Your task to perform on an android device: Play the last video I watched on Youtube Image 0: 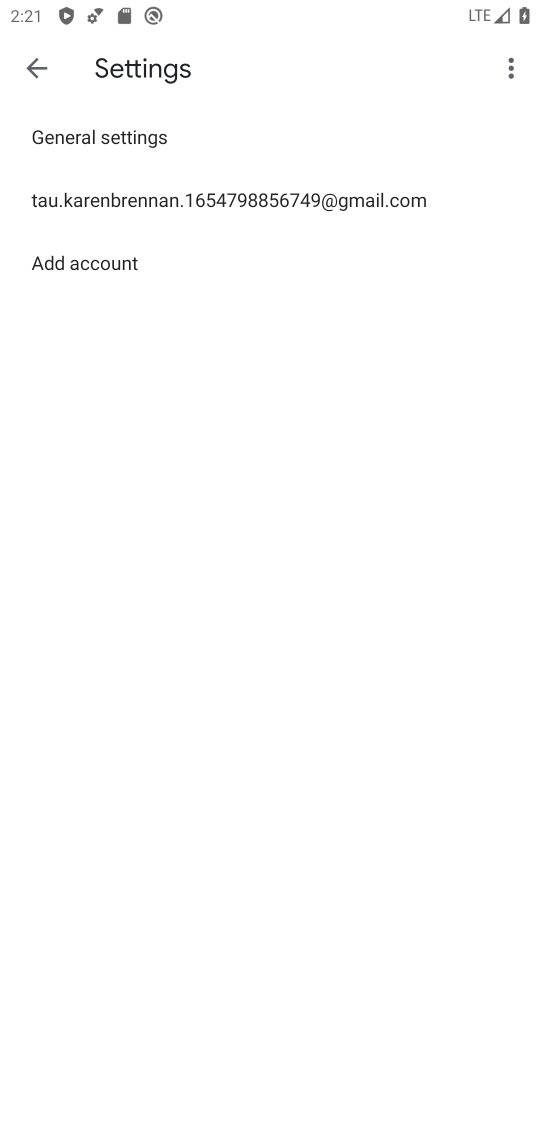
Step 0: press home button
Your task to perform on an android device: Play the last video I watched on Youtube Image 1: 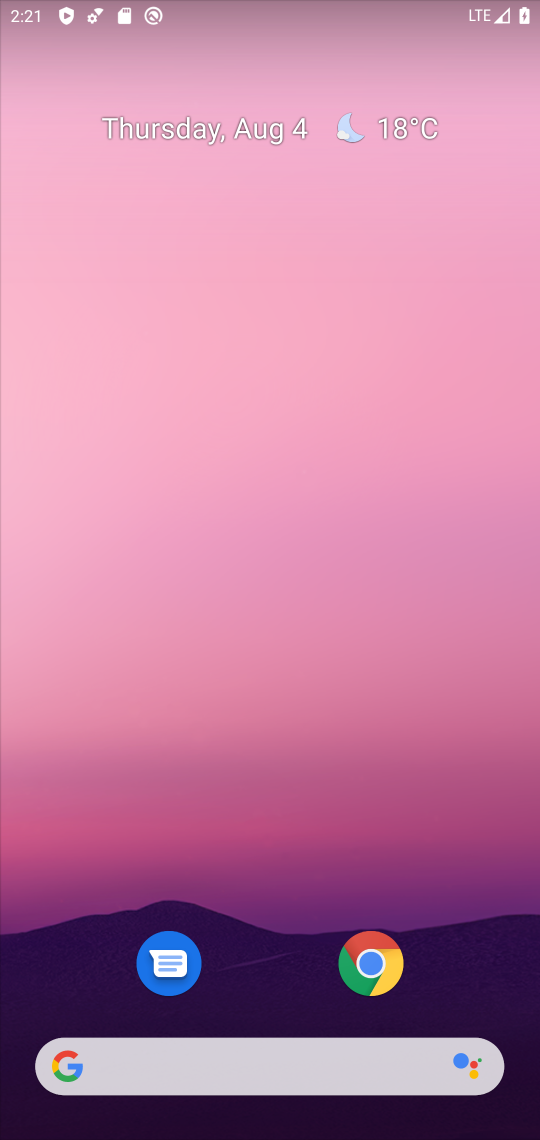
Step 1: drag from (219, 1077) to (190, 260)
Your task to perform on an android device: Play the last video I watched on Youtube Image 2: 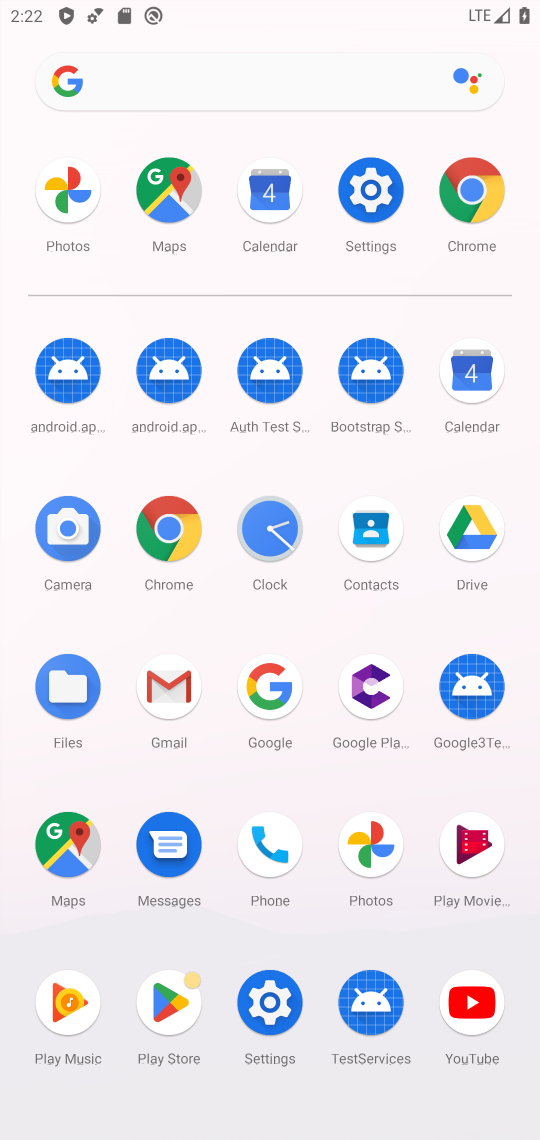
Step 2: click (468, 1018)
Your task to perform on an android device: Play the last video I watched on Youtube Image 3: 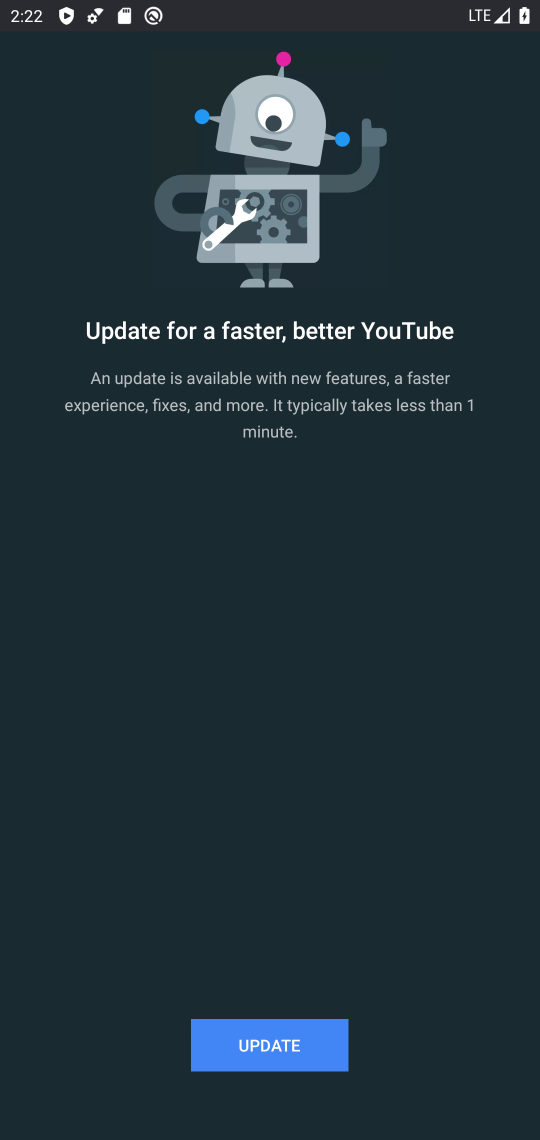
Step 3: click (318, 1049)
Your task to perform on an android device: Play the last video I watched on Youtube Image 4: 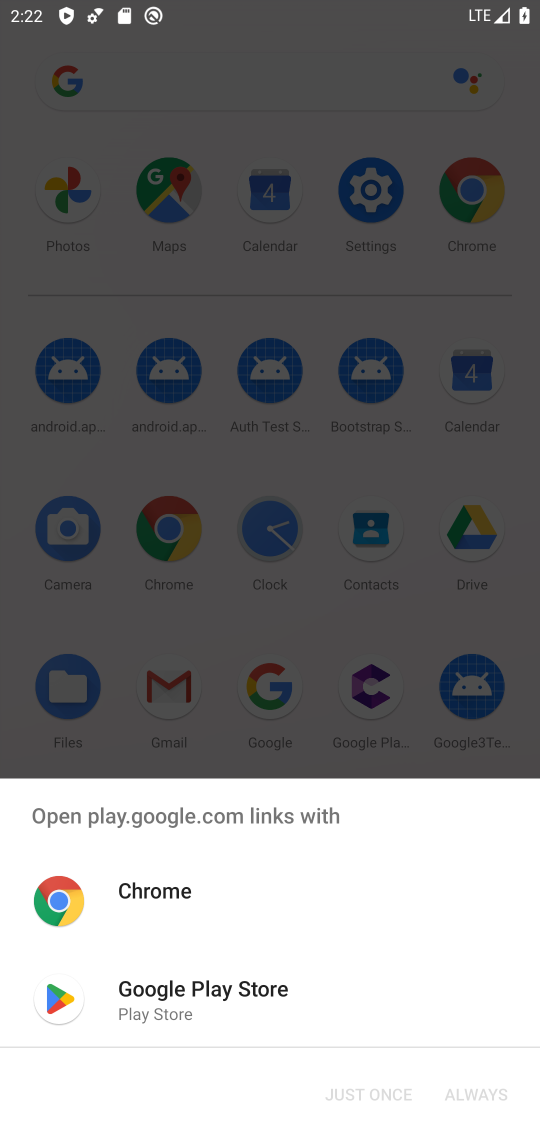
Step 4: click (212, 1001)
Your task to perform on an android device: Play the last video I watched on Youtube Image 5: 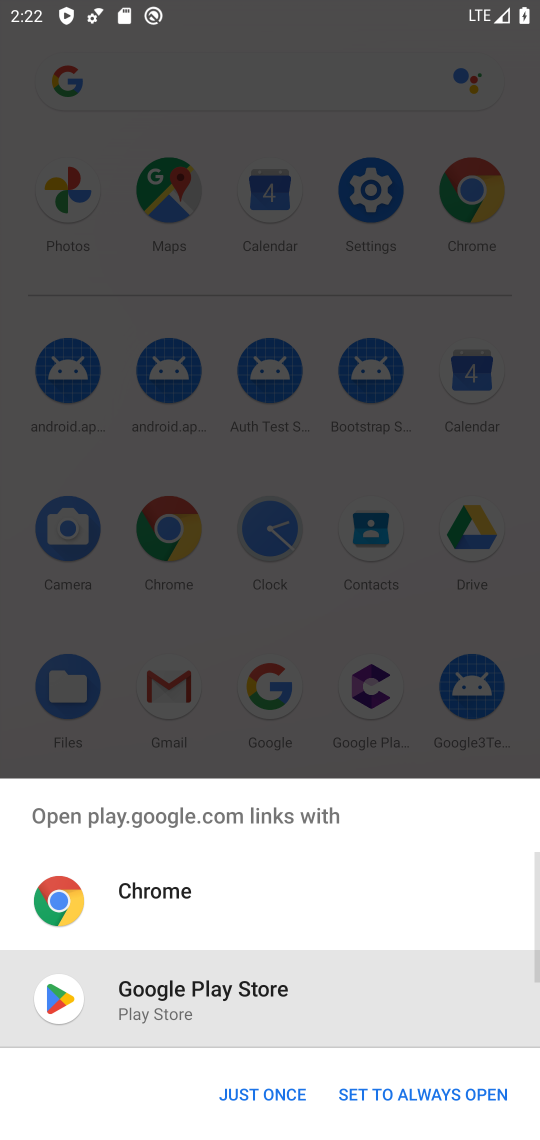
Step 5: click (252, 1096)
Your task to perform on an android device: Play the last video I watched on Youtube Image 6: 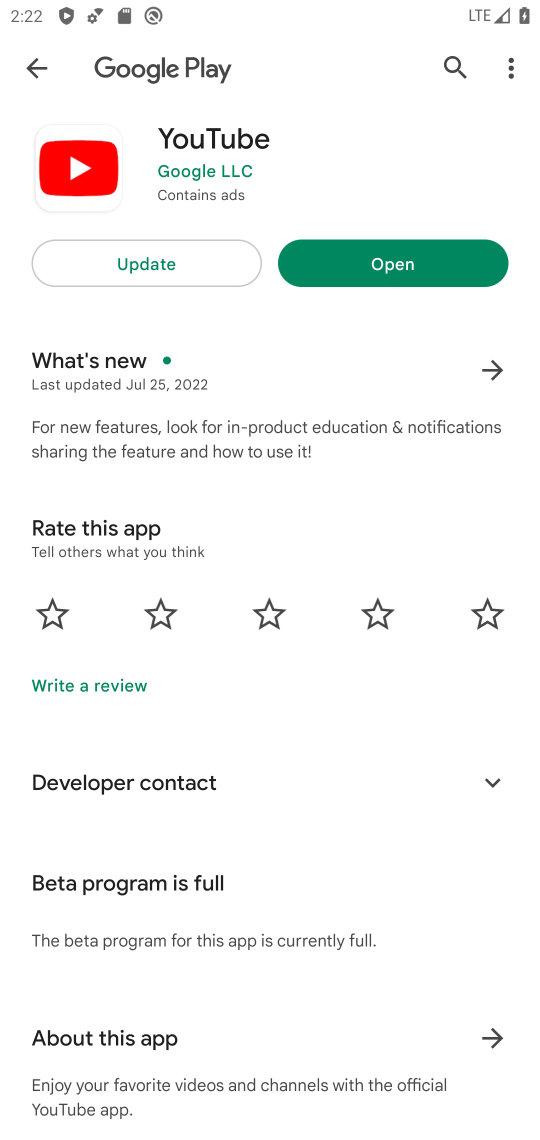
Step 6: click (181, 271)
Your task to perform on an android device: Play the last video I watched on Youtube Image 7: 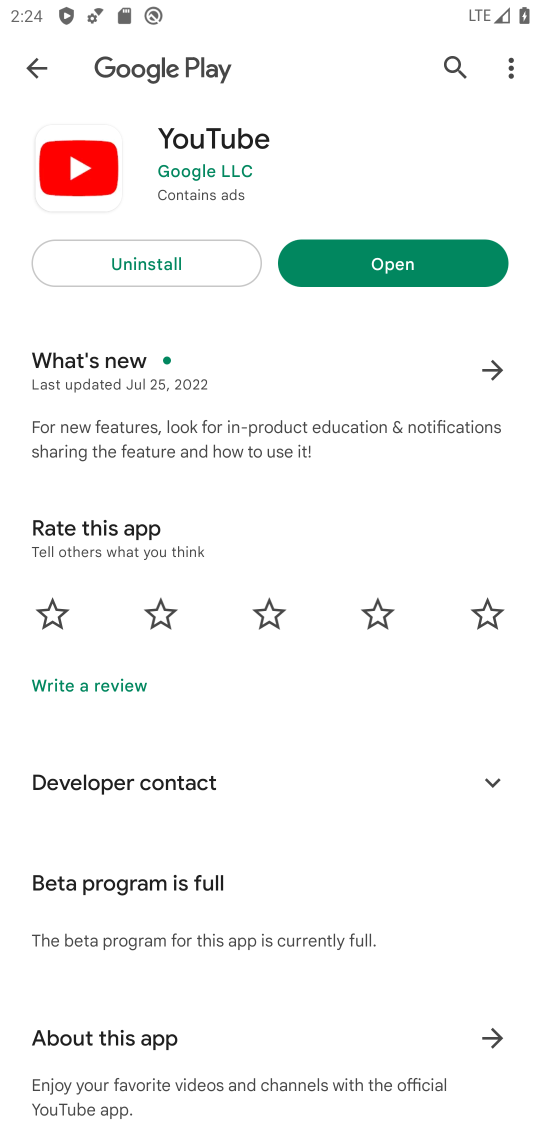
Step 7: click (390, 266)
Your task to perform on an android device: Play the last video I watched on Youtube Image 8: 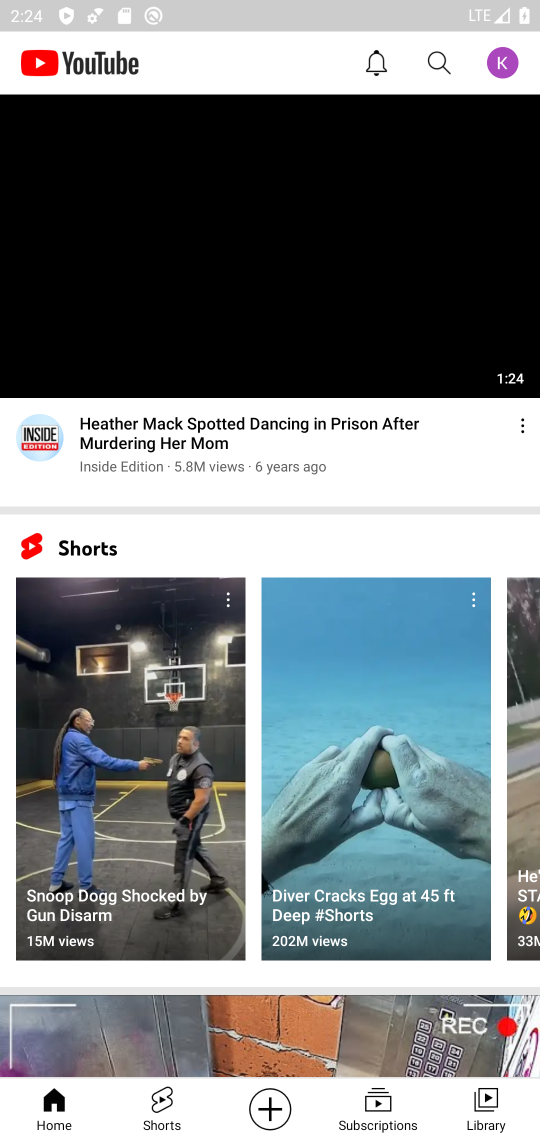
Step 8: click (479, 1106)
Your task to perform on an android device: Play the last video I watched on Youtube Image 9: 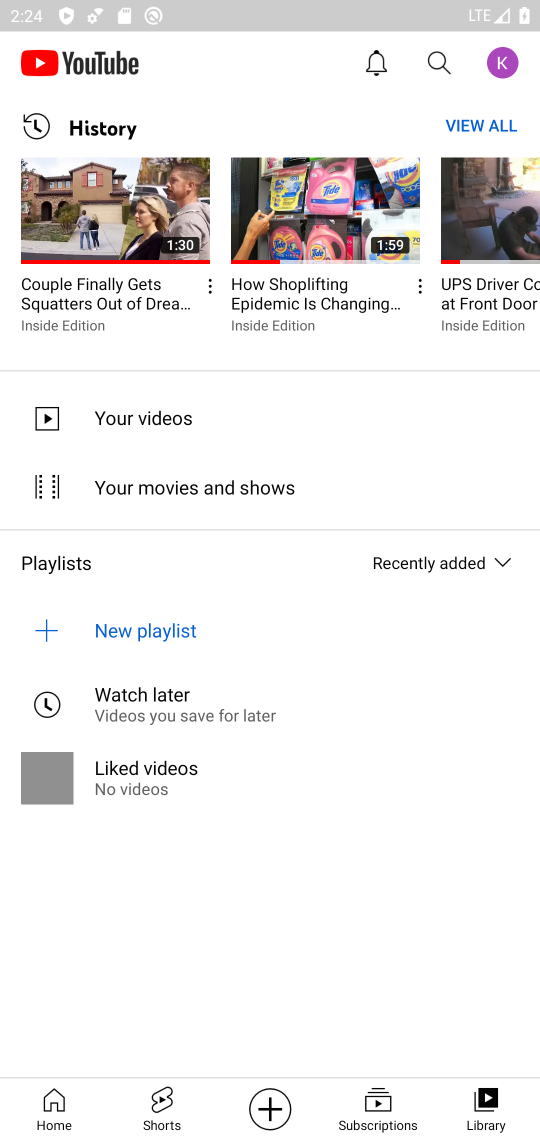
Step 9: click (77, 249)
Your task to perform on an android device: Play the last video I watched on Youtube Image 10: 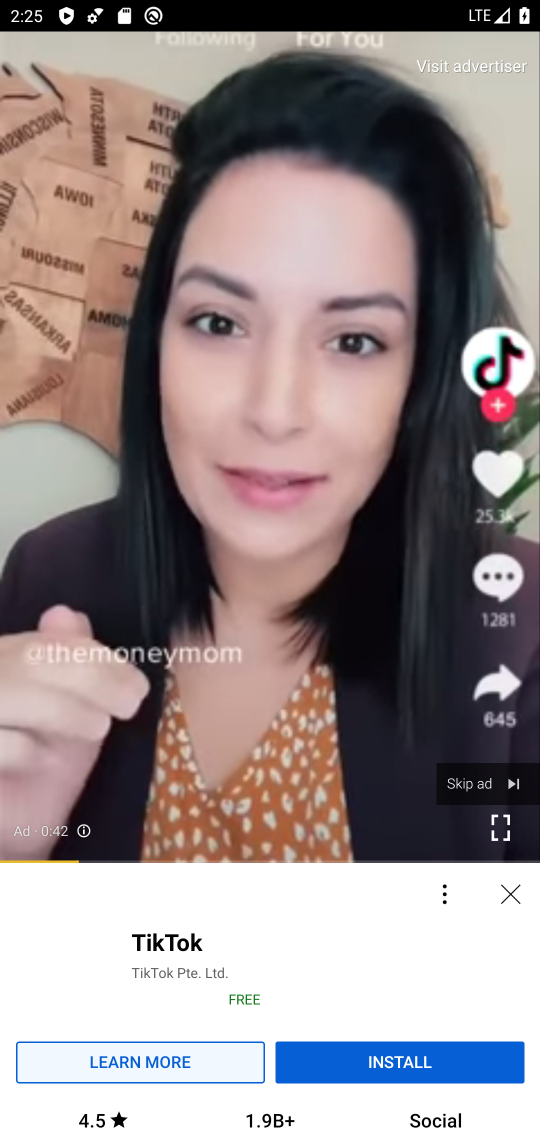
Step 10: task complete